Your task to perform on an android device: turn on translation in the chrome app Image 0: 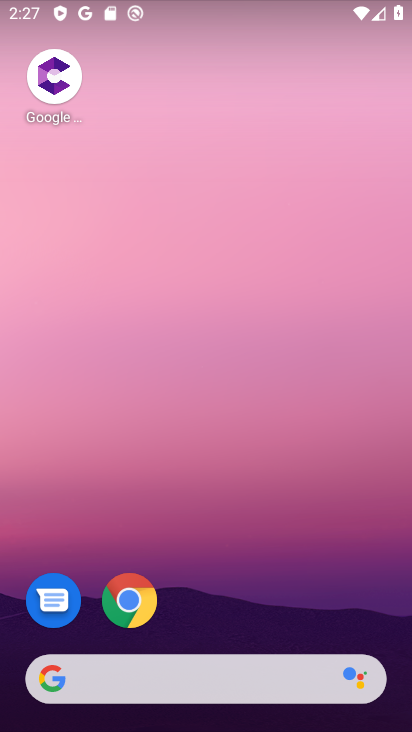
Step 0: click (140, 618)
Your task to perform on an android device: turn on translation in the chrome app Image 1: 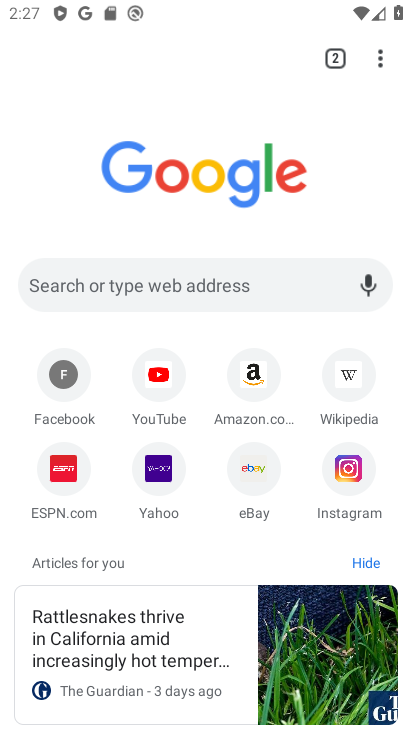
Step 1: drag from (387, 62) to (245, 556)
Your task to perform on an android device: turn on translation in the chrome app Image 2: 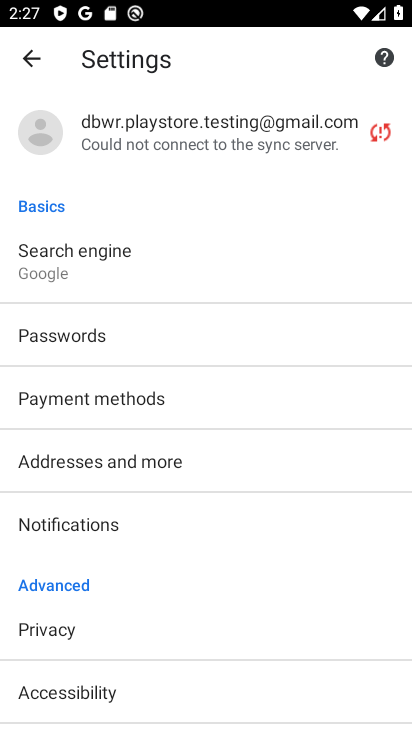
Step 2: drag from (118, 598) to (249, 234)
Your task to perform on an android device: turn on translation in the chrome app Image 3: 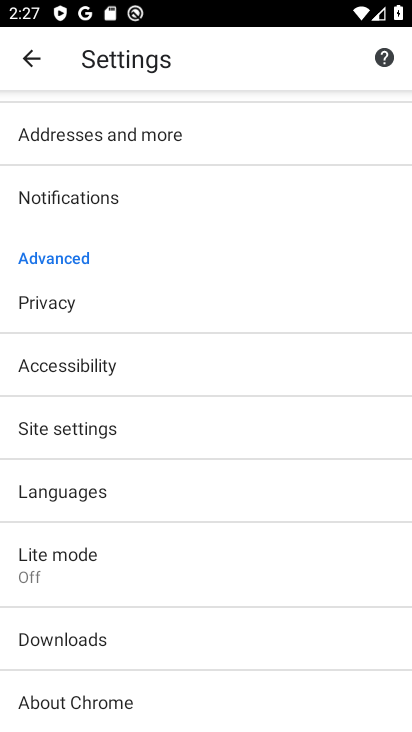
Step 3: drag from (149, 688) to (272, 388)
Your task to perform on an android device: turn on translation in the chrome app Image 4: 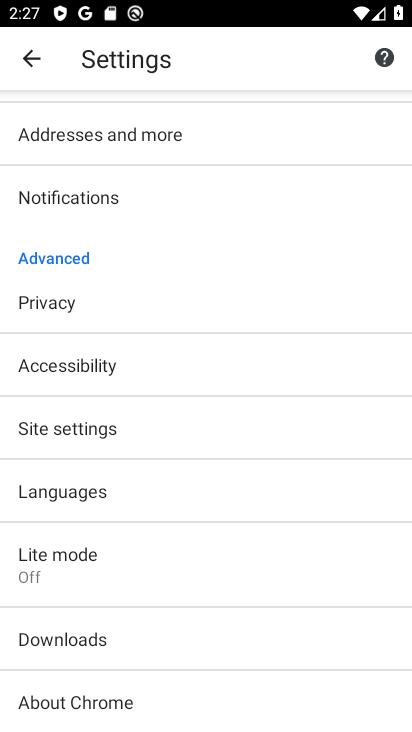
Step 4: click (156, 492)
Your task to perform on an android device: turn on translation in the chrome app Image 5: 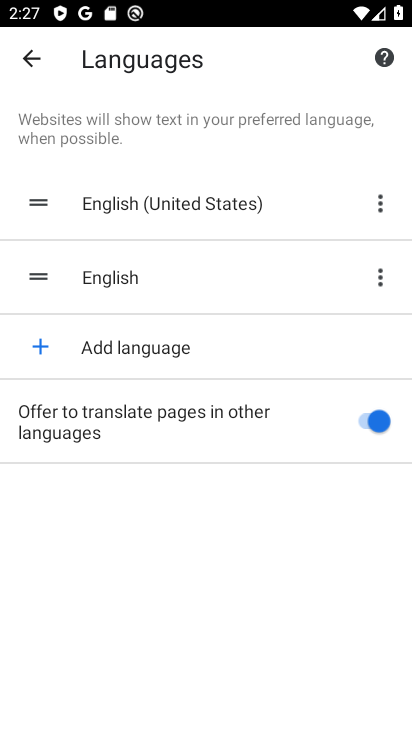
Step 5: task complete